Your task to perform on an android device: Search for pizza restaurants on Maps Image 0: 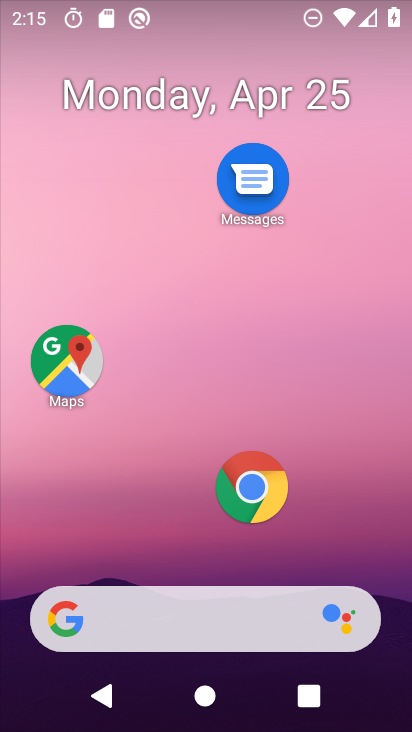
Step 0: drag from (210, 598) to (243, 6)
Your task to perform on an android device: Search for pizza restaurants on Maps Image 1: 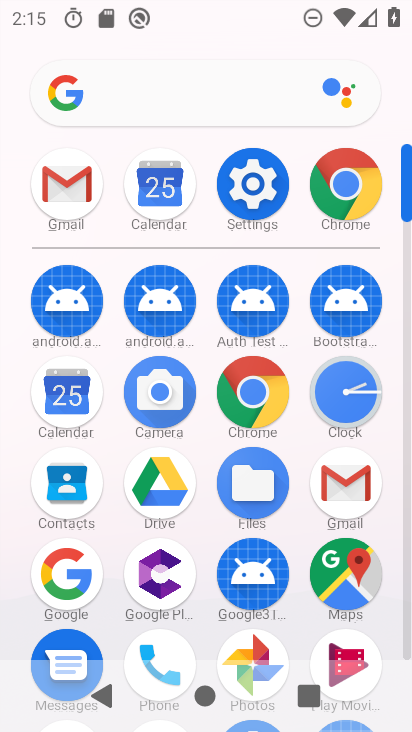
Step 1: click (341, 582)
Your task to perform on an android device: Search for pizza restaurants on Maps Image 2: 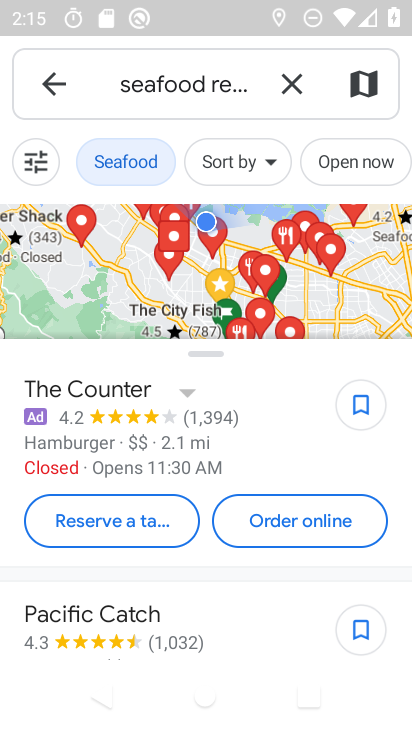
Step 2: click (281, 79)
Your task to perform on an android device: Search for pizza restaurants on Maps Image 3: 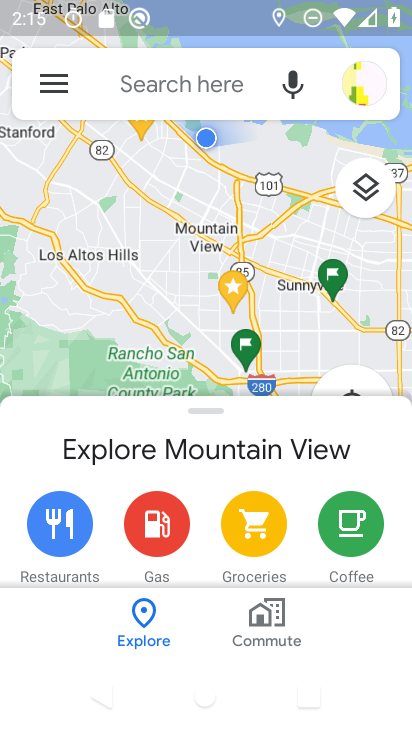
Step 3: click (199, 102)
Your task to perform on an android device: Search for pizza restaurants on Maps Image 4: 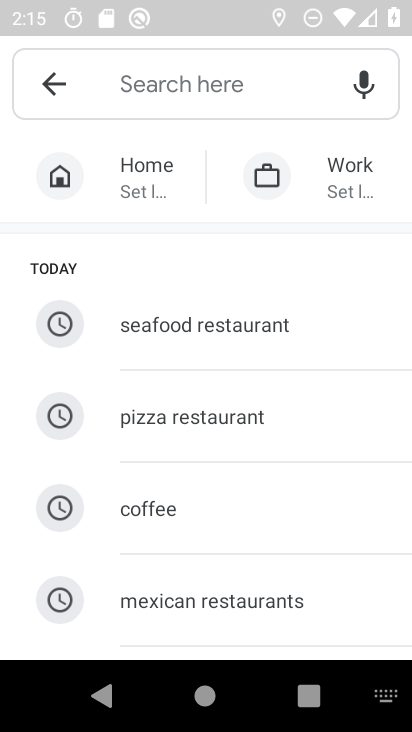
Step 4: type "pizza restaurant"
Your task to perform on an android device: Search for pizza restaurants on Maps Image 5: 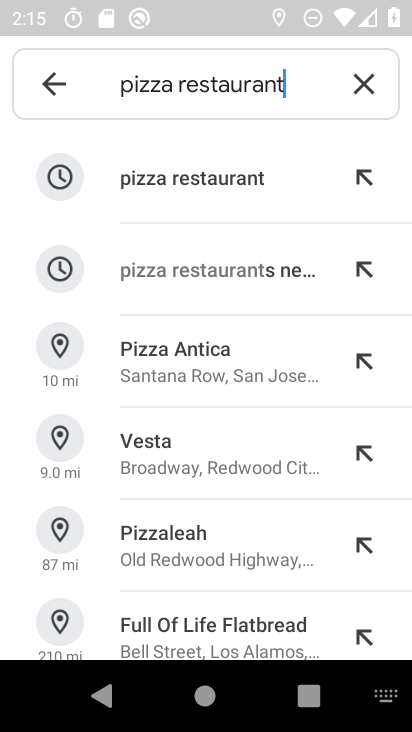
Step 5: click (200, 181)
Your task to perform on an android device: Search for pizza restaurants on Maps Image 6: 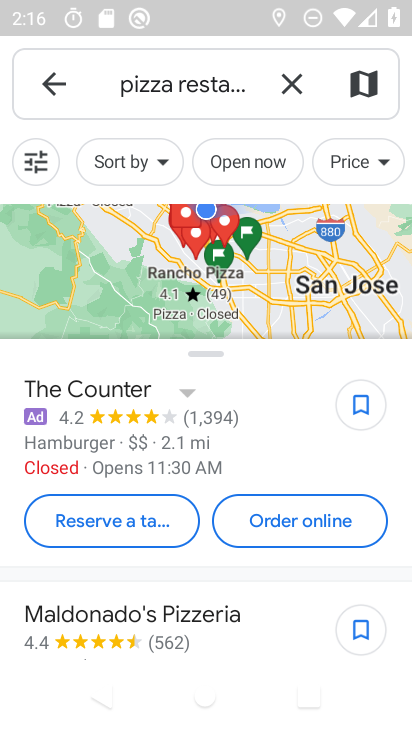
Step 6: task complete